Your task to perform on an android device: open app "Nova Launcher" (install if not already installed), go to login, and select forgot password Image 0: 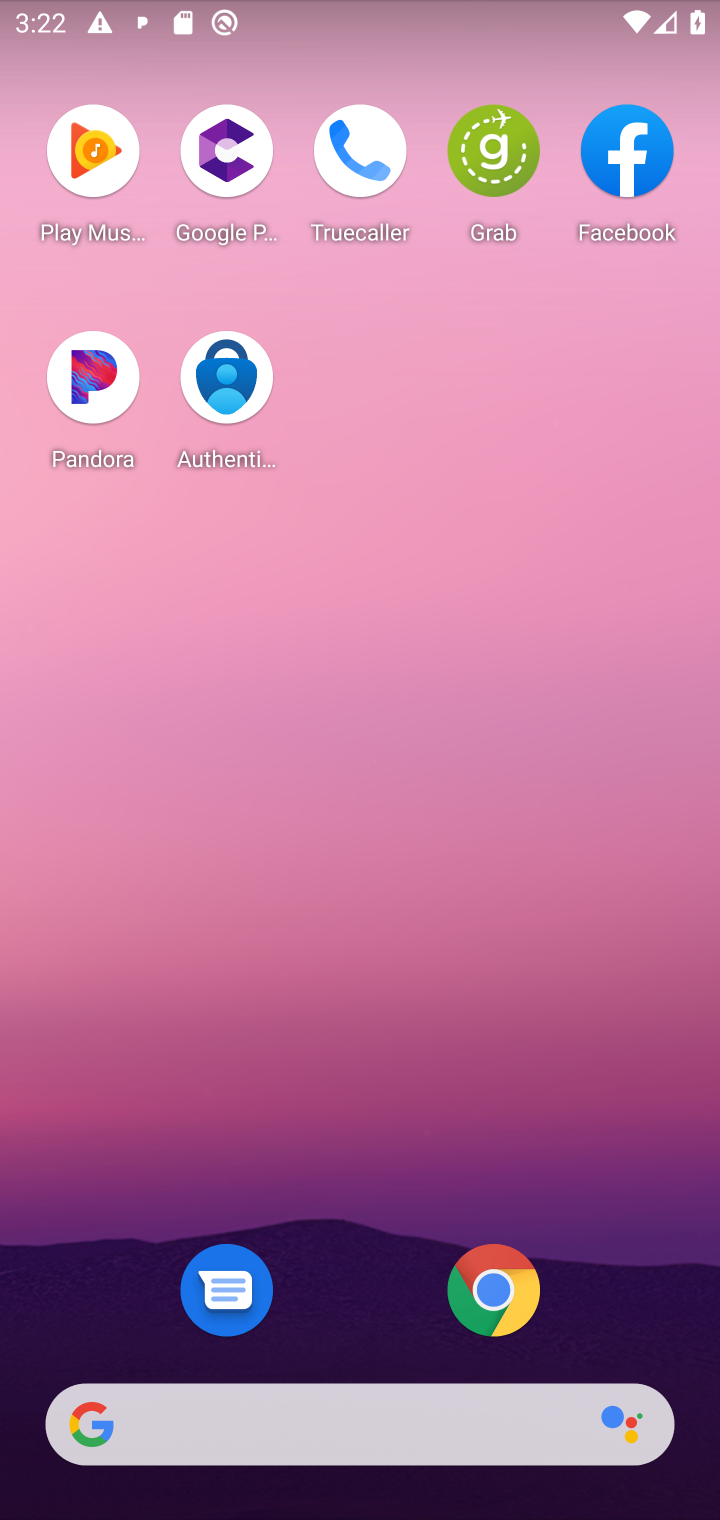
Step 0: drag from (352, 1218) to (661, 26)
Your task to perform on an android device: open app "Nova Launcher" (install if not already installed), go to login, and select forgot password Image 1: 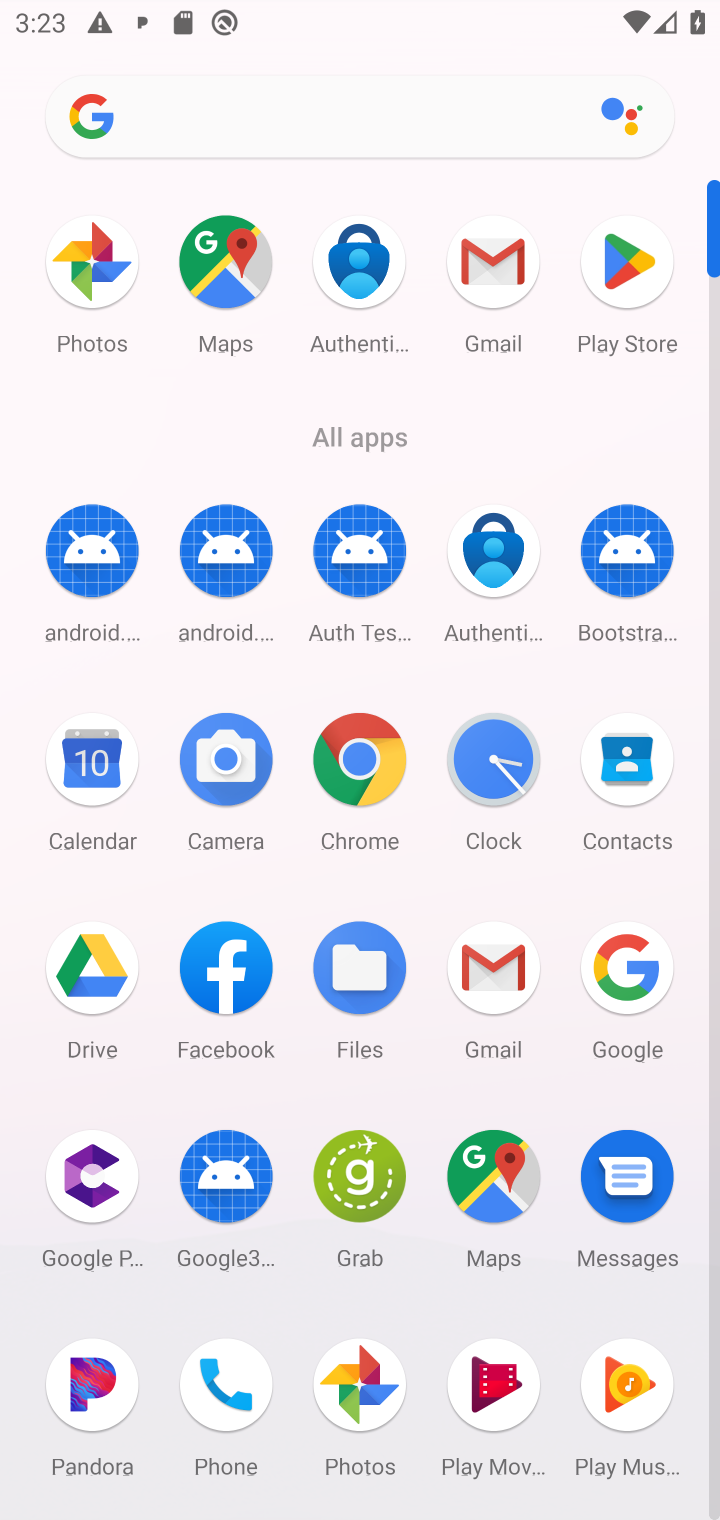
Step 1: click (598, 281)
Your task to perform on an android device: open app "Nova Launcher" (install if not already installed), go to login, and select forgot password Image 2: 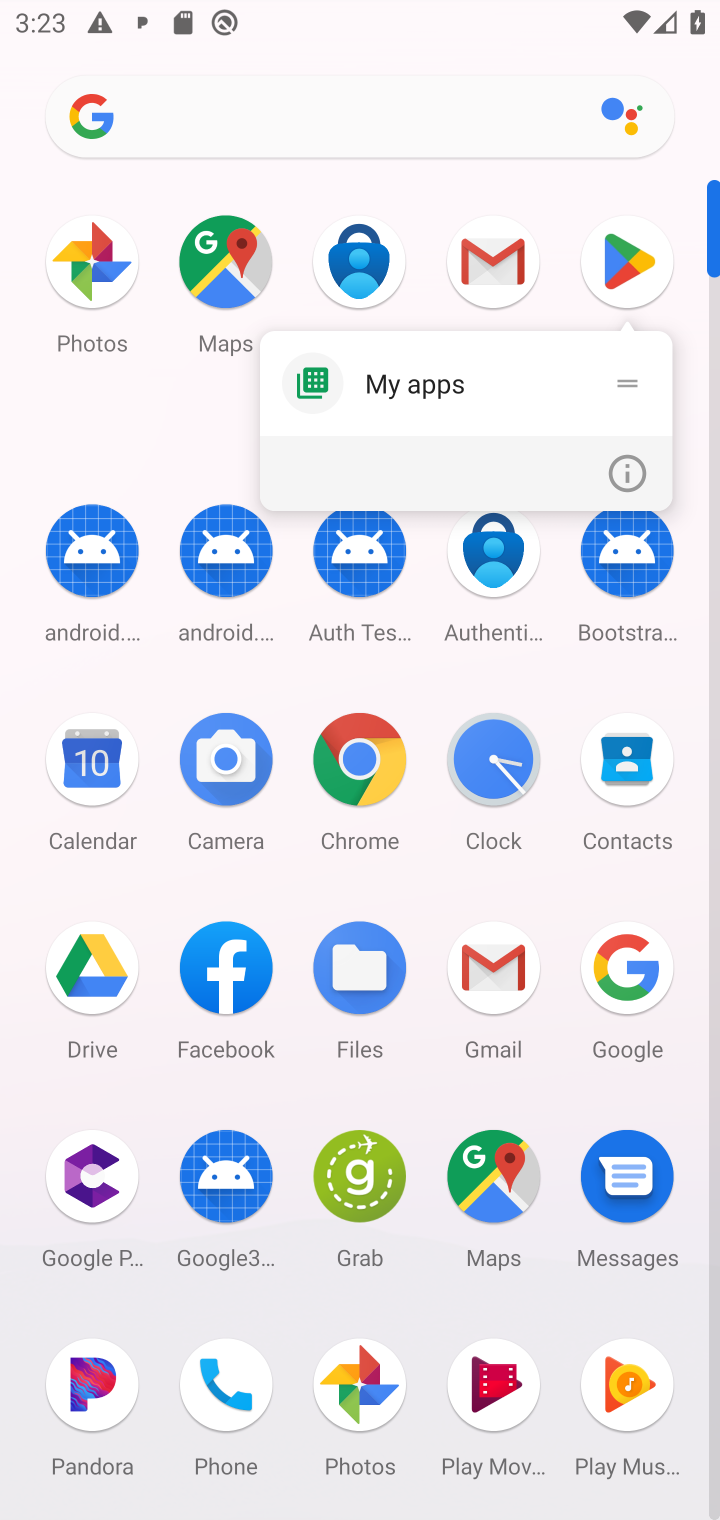
Step 2: click (619, 256)
Your task to perform on an android device: open app "Nova Launcher" (install if not already installed), go to login, and select forgot password Image 3: 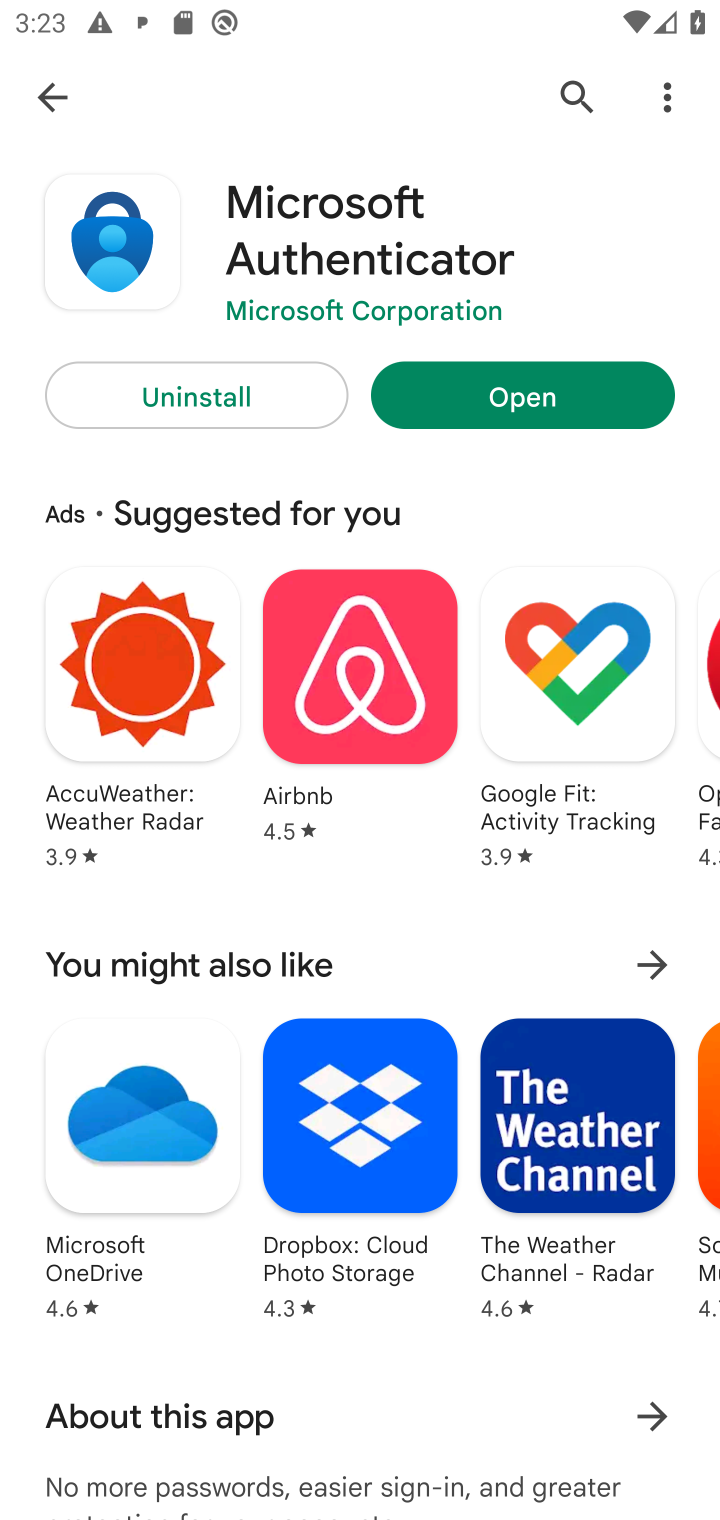
Step 3: click (55, 109)
Your task to perform on an android device: open app "Nova Launcher" (install if not already installed), go to login, and select forgot password Image 4: 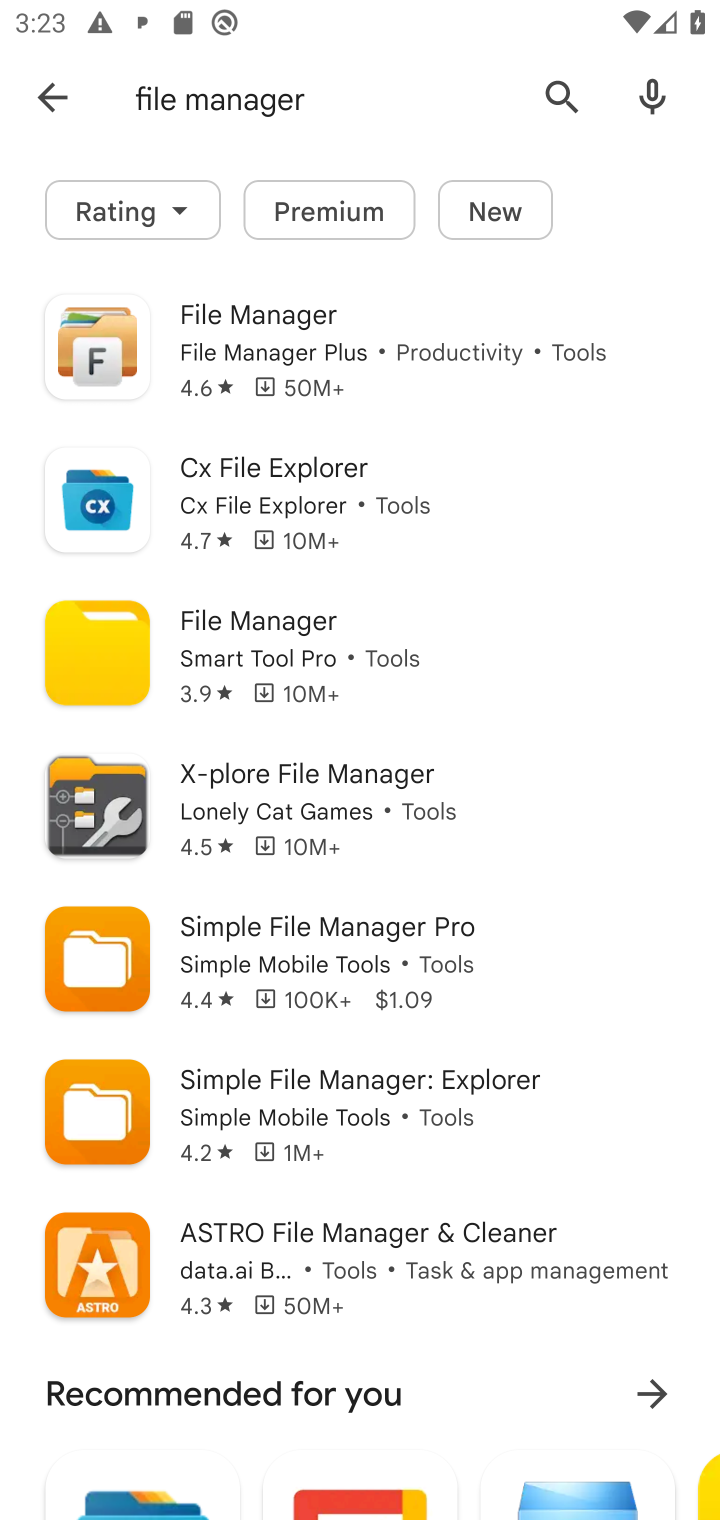
Step 4: click (552, 109)
Your task to perform on an android device: open app "Nova Launcher" (install if not already installed), go to login, and select forgot password Image 5: 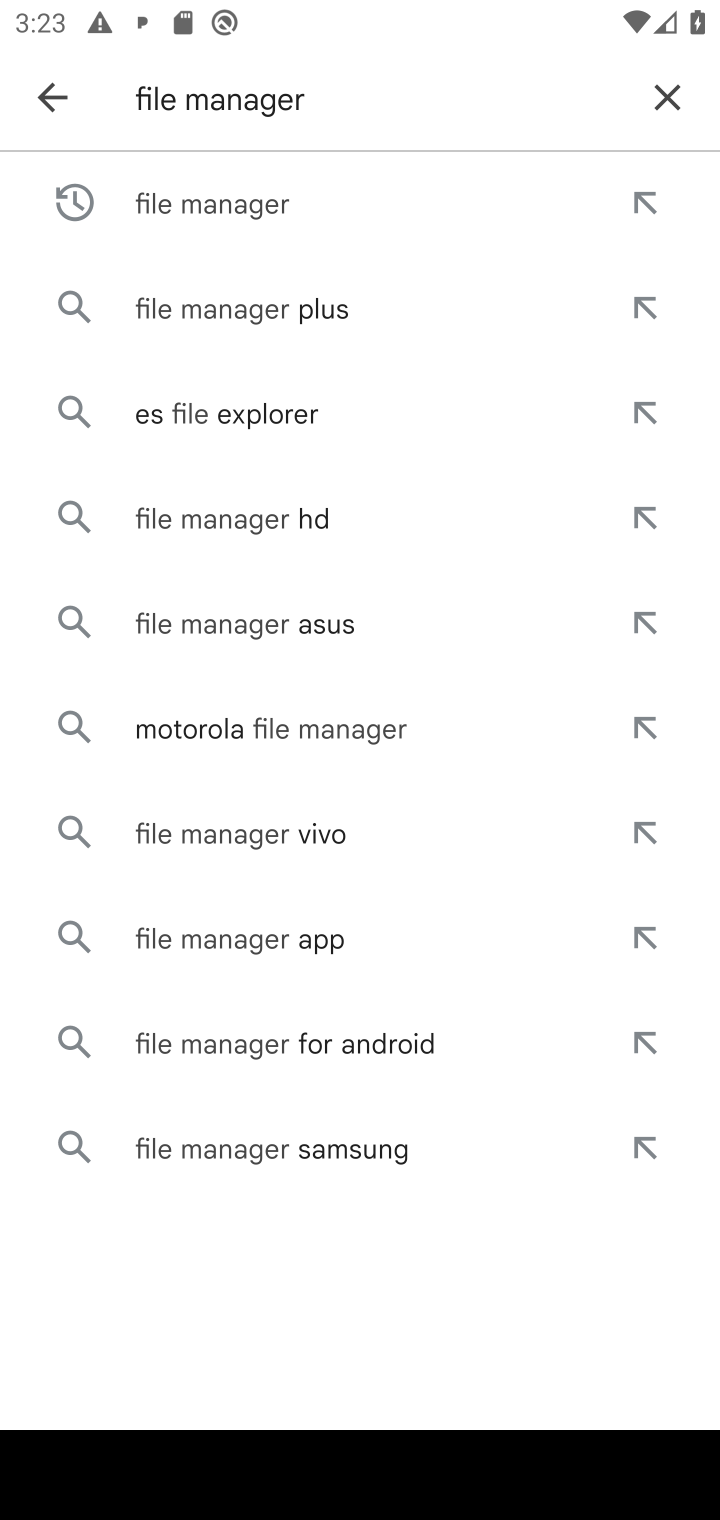
Step 5: click (656, 101)
Your task to perform on an android device: open app "Nova Launcher" (install if not already installed), go to login, and select forgot password Image 6: 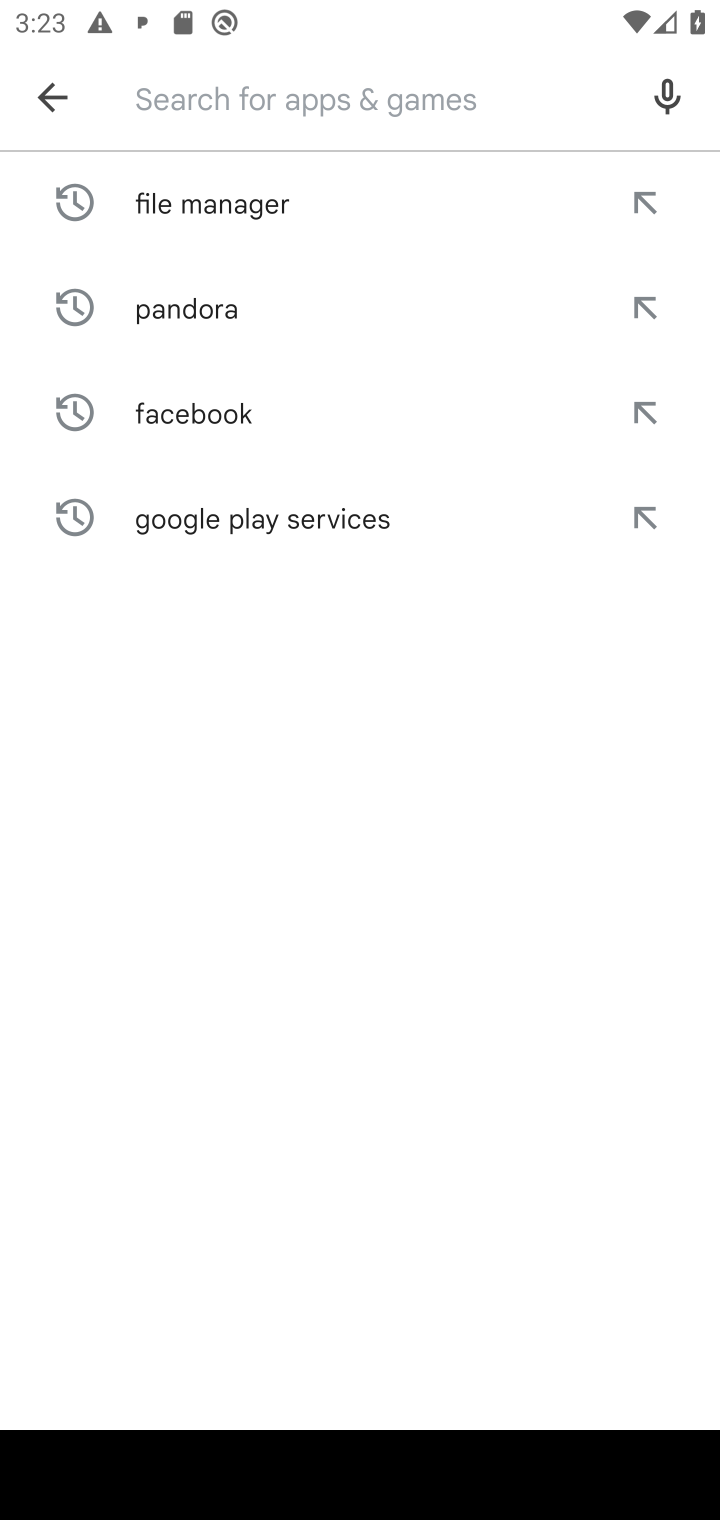
Step 6: type "Nova Launcher"
Your task to perform on an android device: open app "Nova Launcher" (install if not already installed), go to login, and select forgot password Image 7: 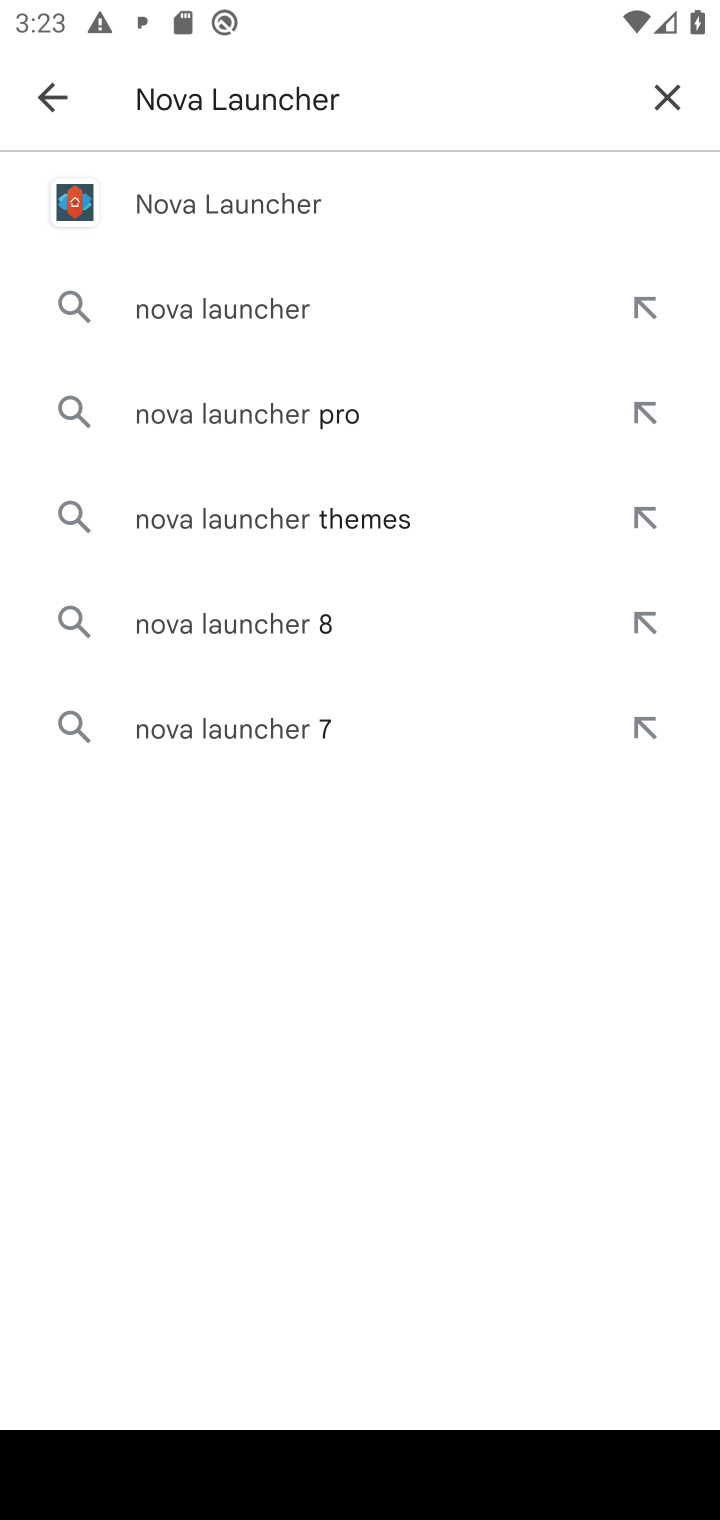
Step 7: click (271, 217)
Your task to perform on an android device: open app "Nova Launcher" (install if not already installed), go to login, and select forgot password Image 8: 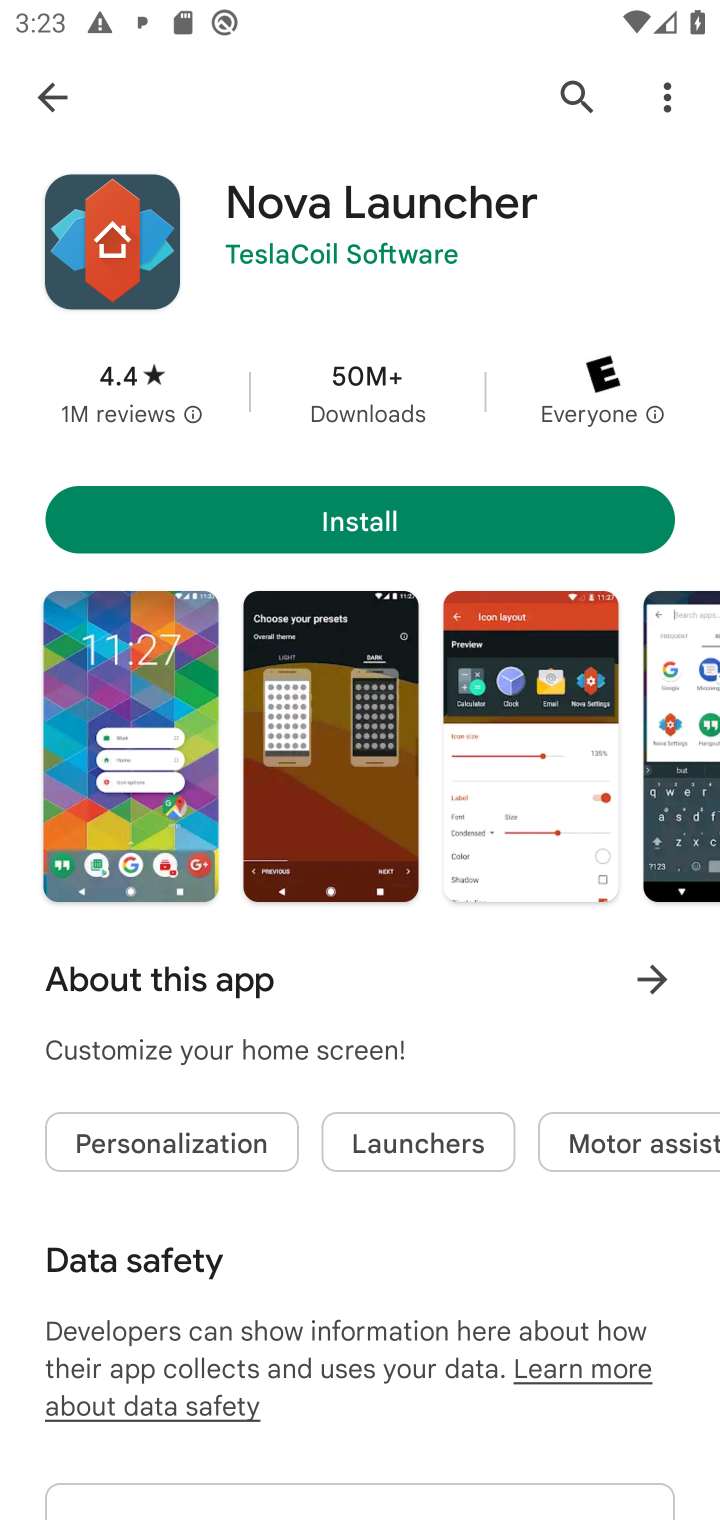
Step 8: click (461, 533)
Your task to perform on an android device: open app "Nova Launcher" (install if not already installed), go to login, and select forgot password Image 9: 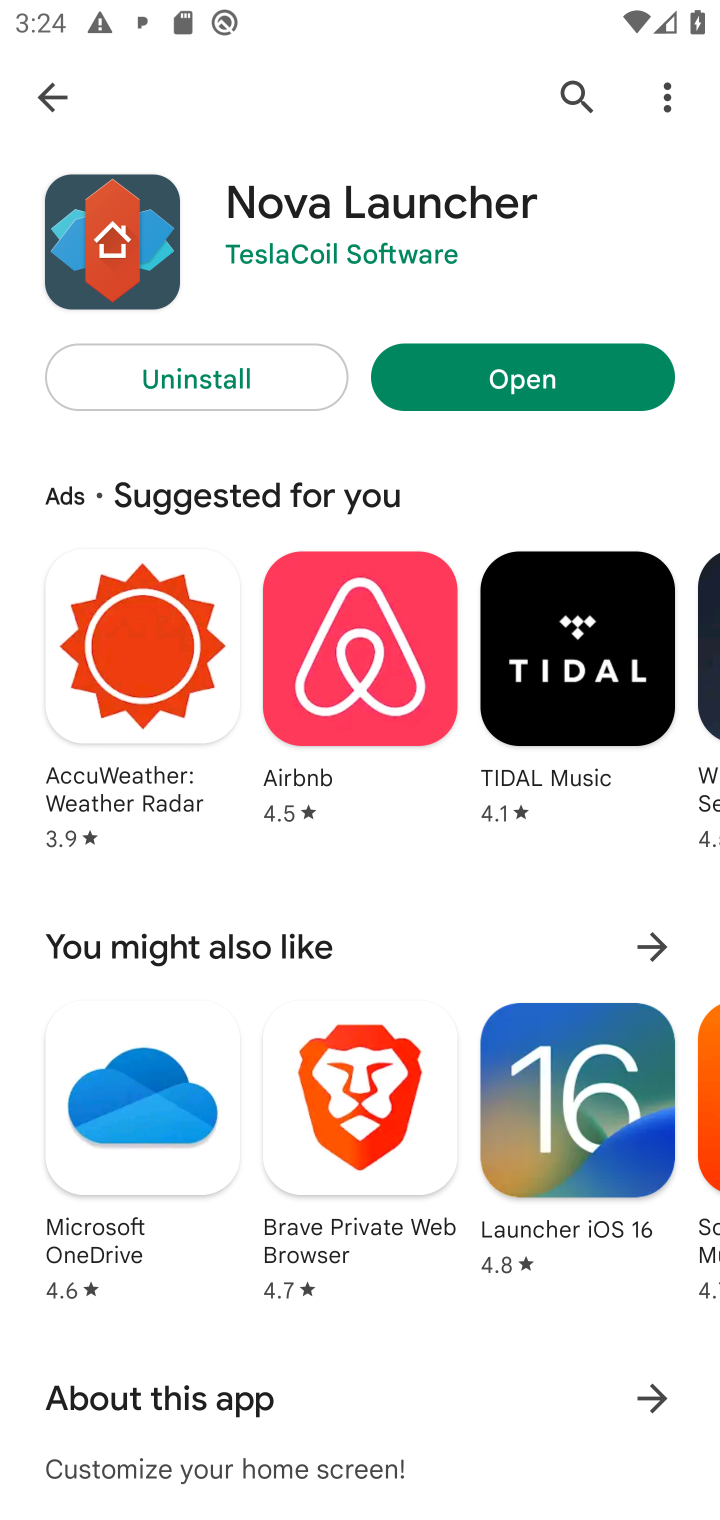
Step 9: click (492, 367)
Your task to perform on an android device: open app "Nova Launcher" (install if not already installed), go to login, and select forgot password Image 10: 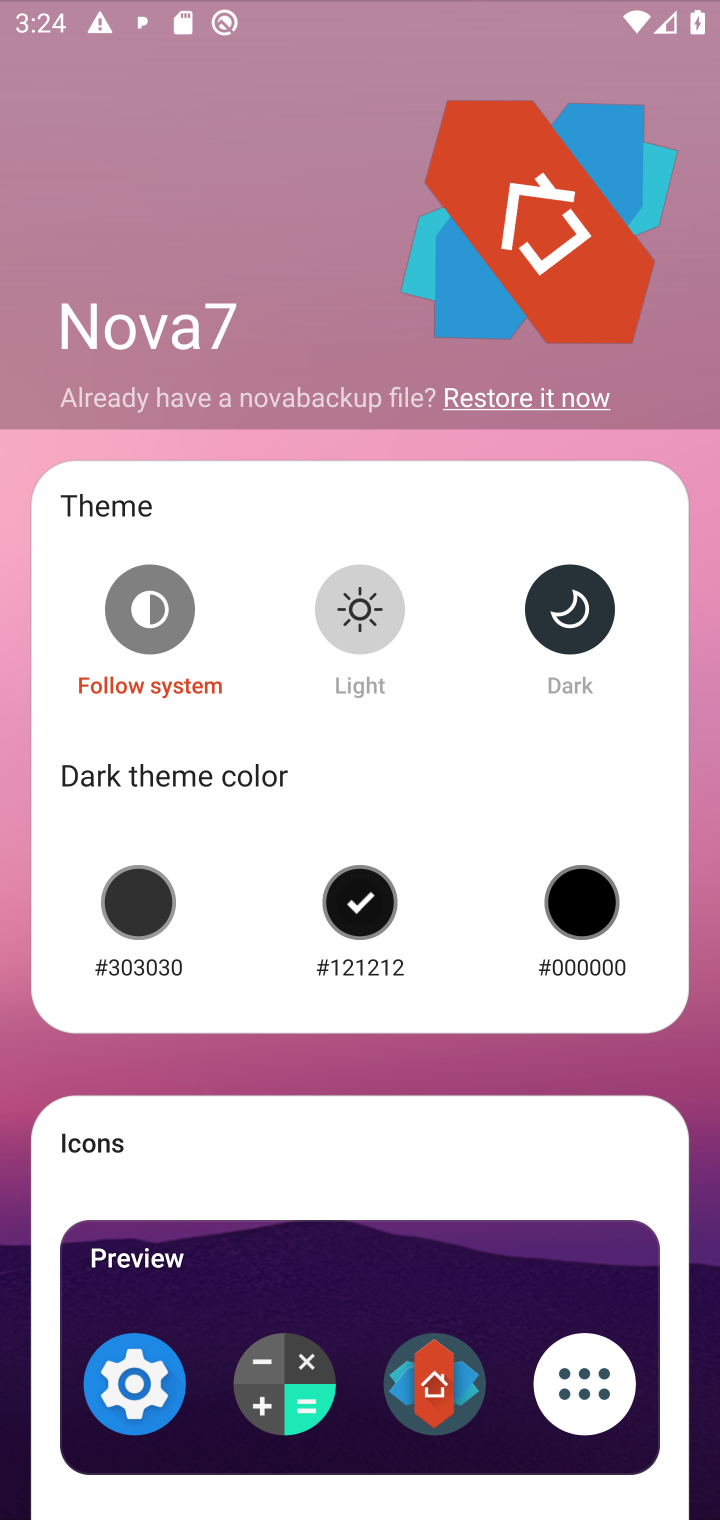
Step 10: task complete